Your task to perform on an android device: Open Chrome and go to settings Image 0: 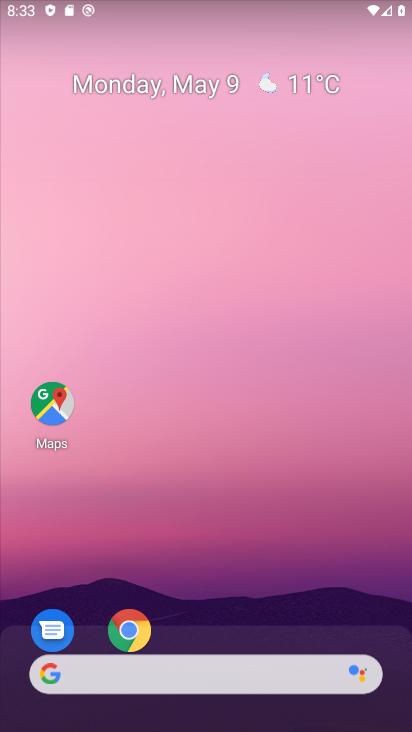
Step 0: click (96, 646)
Your task to perform on an android device: Open Chrome and go to settings Image 1: 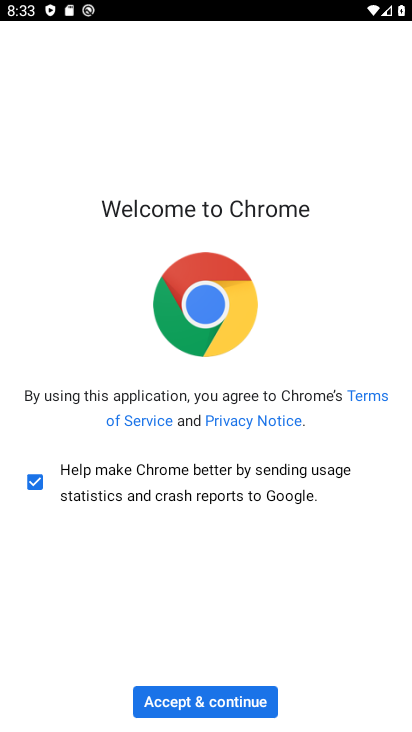
Step 1: click (177, 710)
Your task to perform on an android device: Open Chrome and go to settings Image 2: 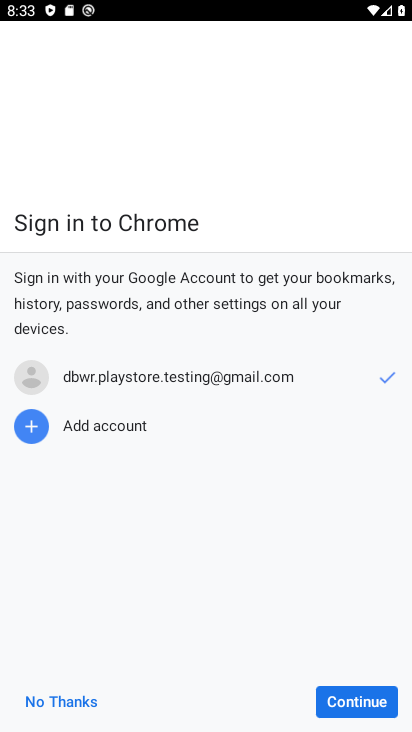
Step 2: click (347, 708)
Your task to perform on an android device: Open Chrome and go to settings Image 3: 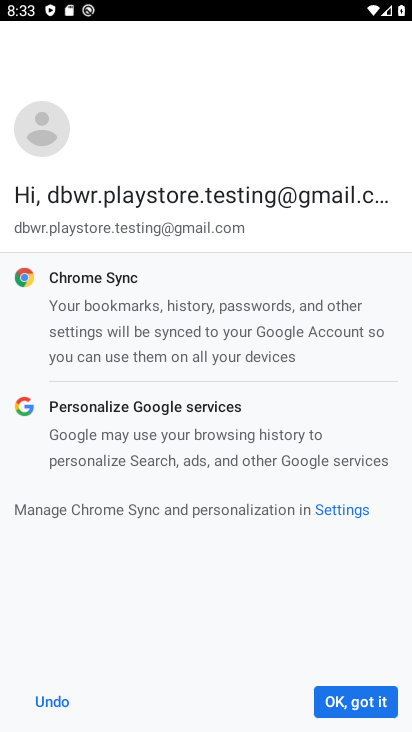
Step 3: click (340, 693)
Your task to perform on an android device: Open Chrome and go to settings Image 4: 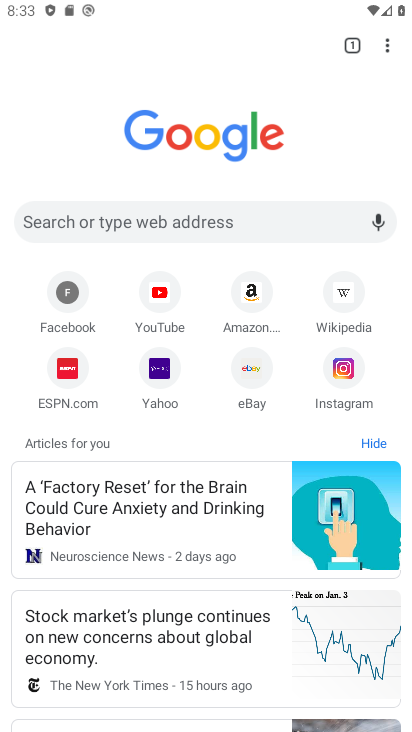
Step 4: task complete